Your task to perform on an android device: find which apps use the phone's location Image 0: 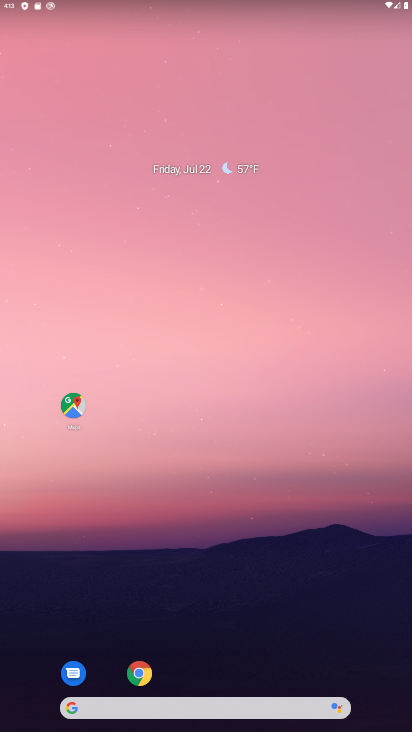
Step 0: press home button
Your task to perform on an android device: find which apps use the phone's location Image 1: 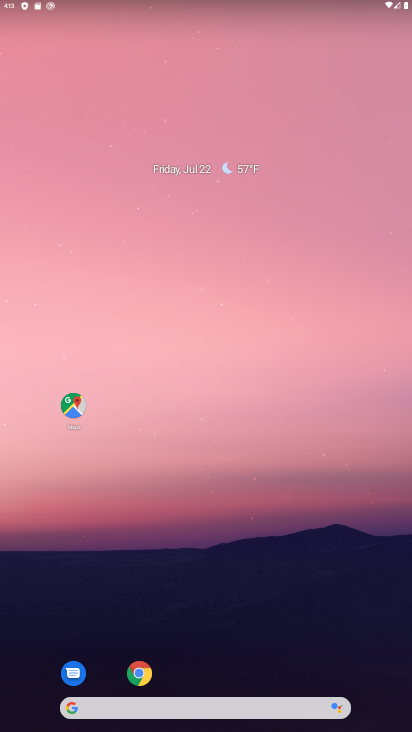
Step 1: drag from (360, 625) to (250, 103)
Your task to perform on an android device: find which apps use the phone's location Image 2: 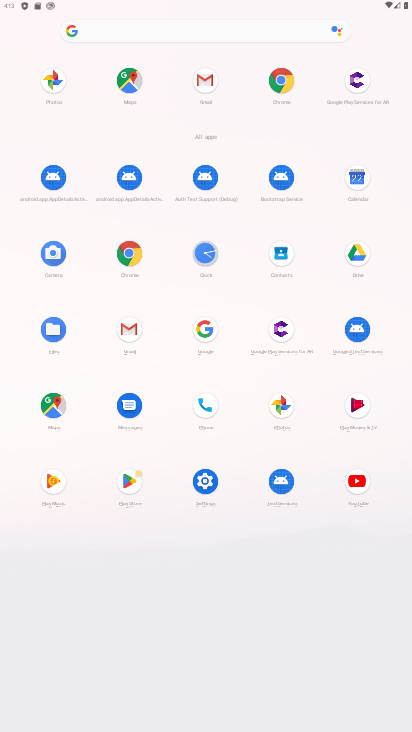
Step 2: click (208, 490)
Your task to perform on an android device: find which apps use the phone's location Image 3: 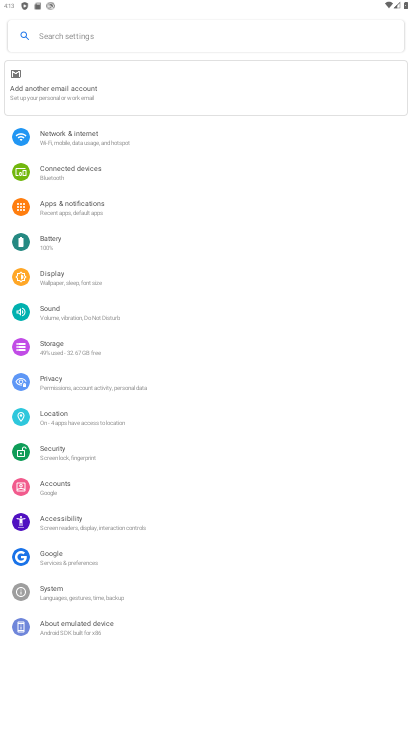
Step 3: click (38, 418)
Your task to perform on an android device: find which apps use the phone's location Image 4: 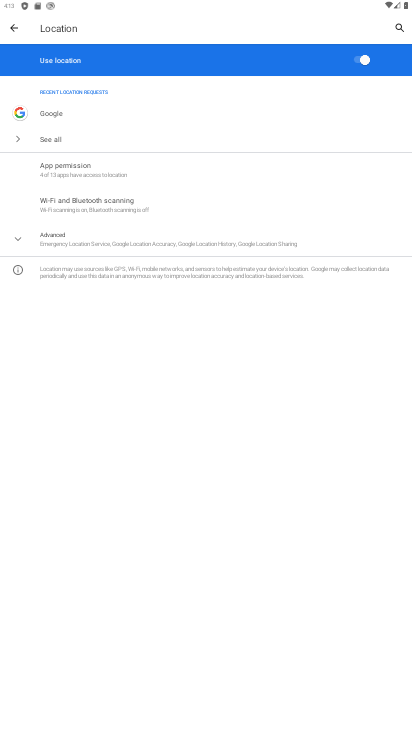
Step 4: click (74, 161)
Your task to perform on an android device: find which apps use the phone's location Image 5: 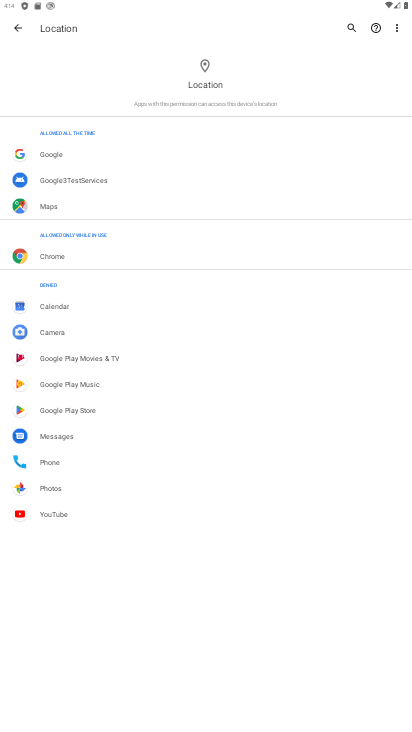
Step 5: task complete